Your task to perform on an android device: Go to settings Image 0: 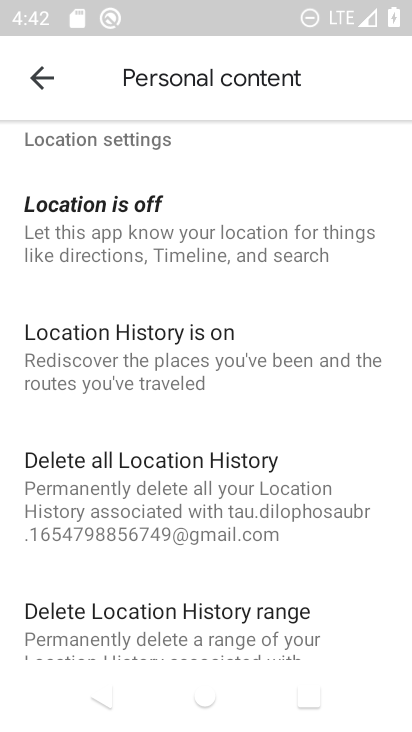
Step 0: press back button
Your task to perform on an android device: Go to settings Image 1: 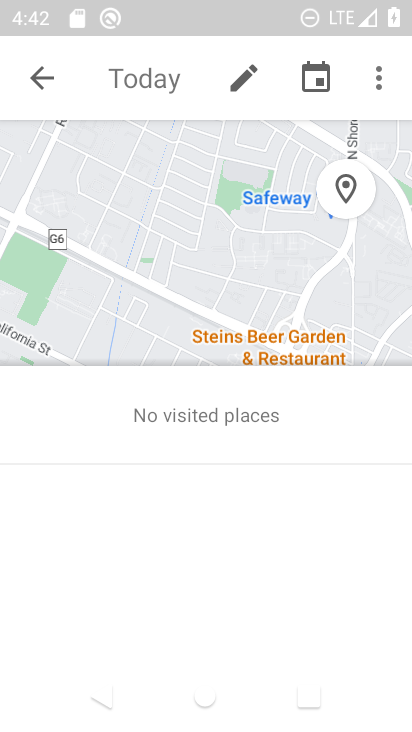
Step 1: press back button
Your task to perform on an android device: Go to settings Image 2: 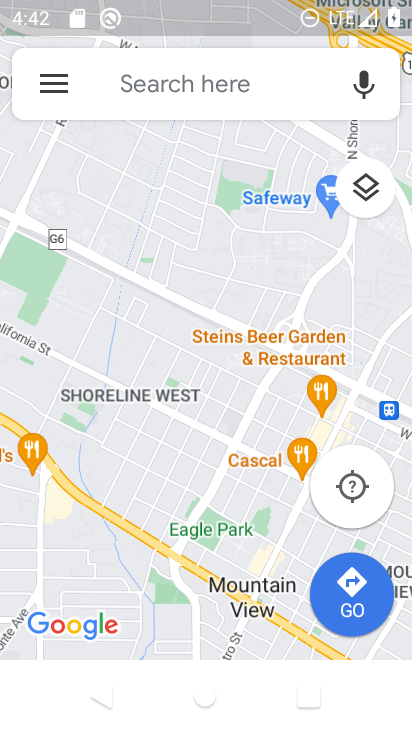
Step 2: press back button
Your task to perform on an android device: Go to settings Image 3: 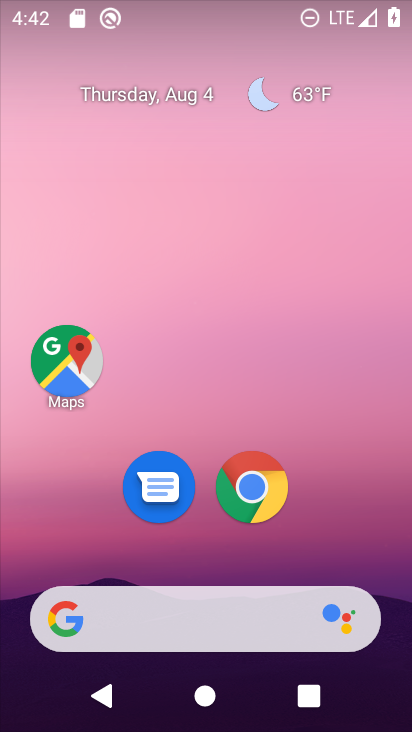
Step 3: drag from (73, 522) to (209, 40)
Your task to perform on an android device: Go to settings Image 4: 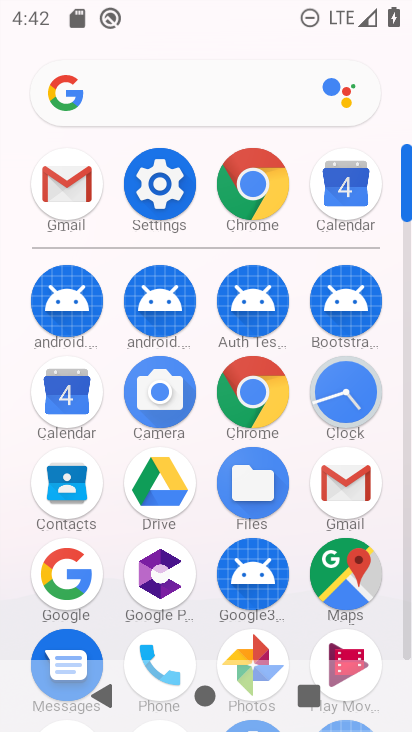
Step 4: click (149, 193)
Your task to perform on an android device: Go to settings Image 5: 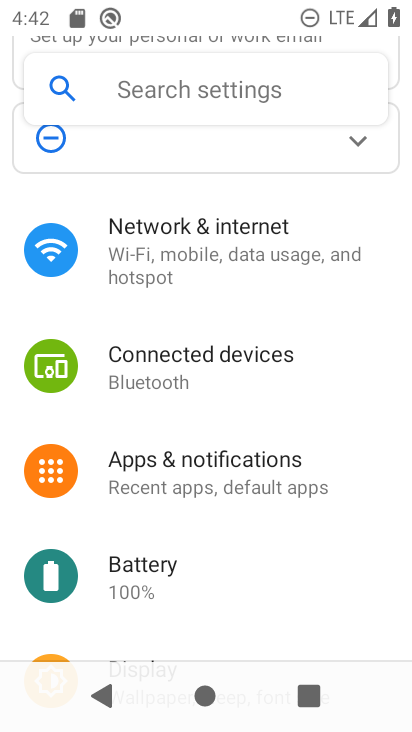
Step 5: task complete